Your task to perform on an android device: Open Youtube and go to the subscriptions tab Image 0: 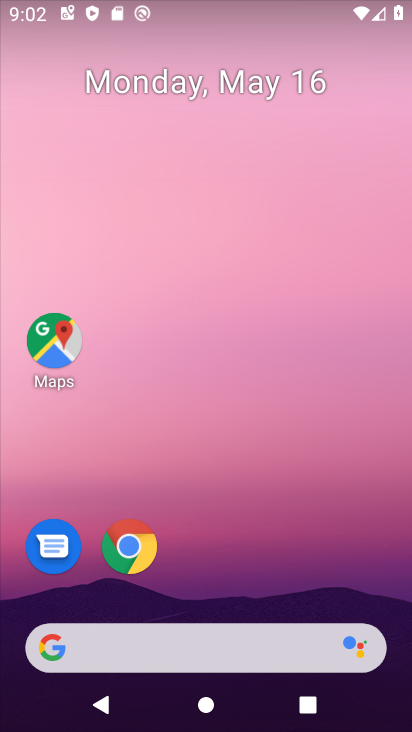
Step 0: press home button
Your task to perform on an android device: Open Youtube and go to the subscriptions tab Image 1: 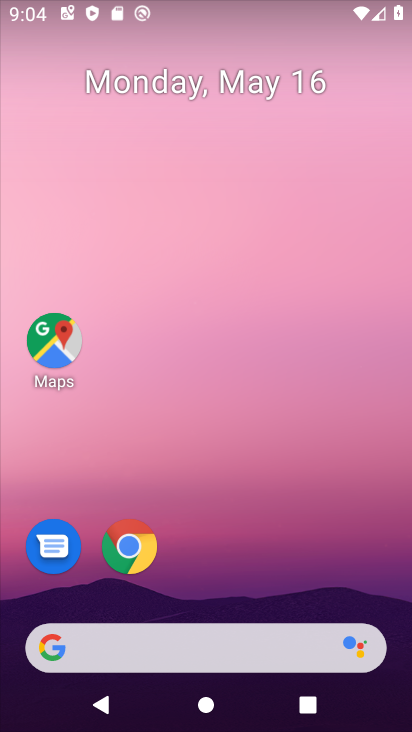
Step 1: drag from (259, 669) to (228, 259)
Your task to perform on an android device: Open Youtube and go to the subscriptions tab Image 2: 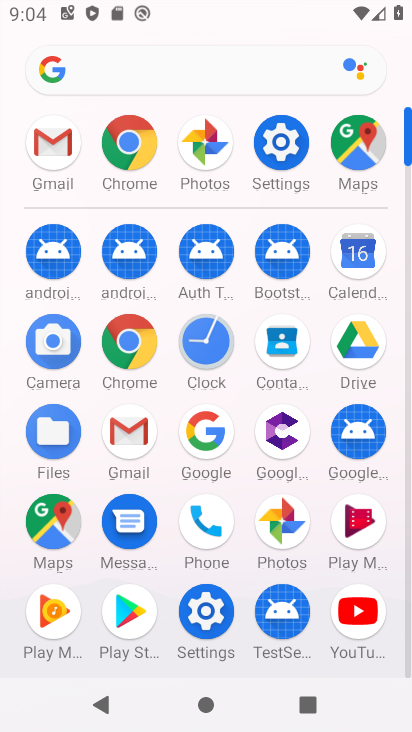
Step 2: click (364, 597)
Your task to perform on an android device: Open Youtube and go to the subscriptions tab Image 3: 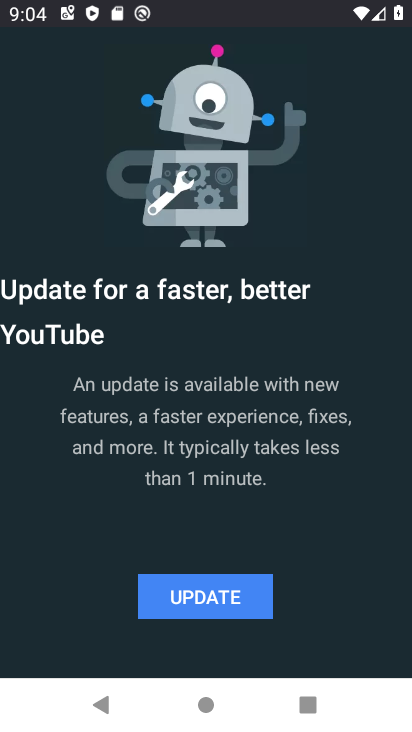
Step 3: click (221, 613)
Your task to perform on an android device: Open Youtube and go to the subscriptions tab Image 4: 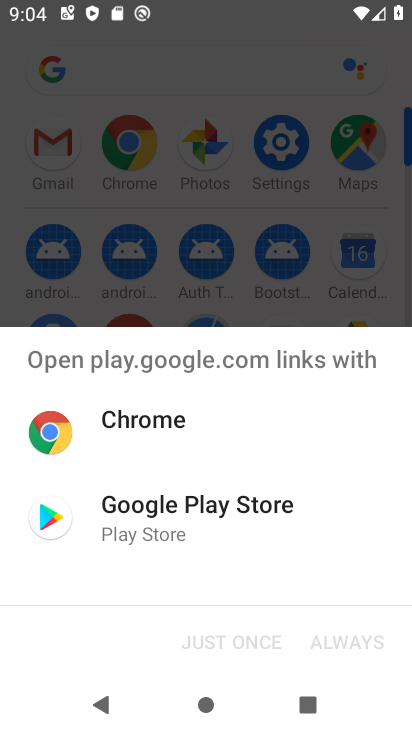
Step 4: click (213, 527)
Your task to perform on an android device: Open Youtube and go to the subscriptions tab Image 5: 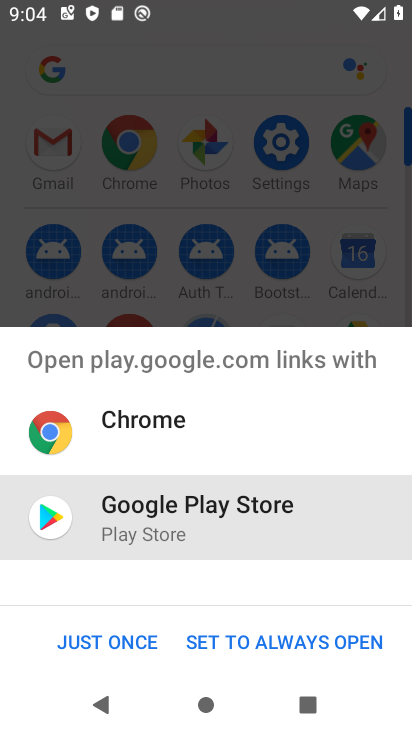
Step 5: click (141, 639)
Your task to perform on an android device: Open Youtube and go to the subscriptions tab Image 6: 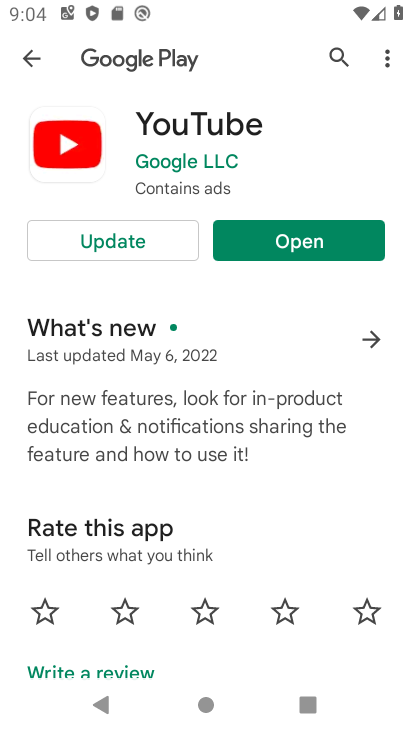
Step 6: click (137, 248)
Your task to perform on an android device: Open Youtube and go to the subscriptions tab Image 7: 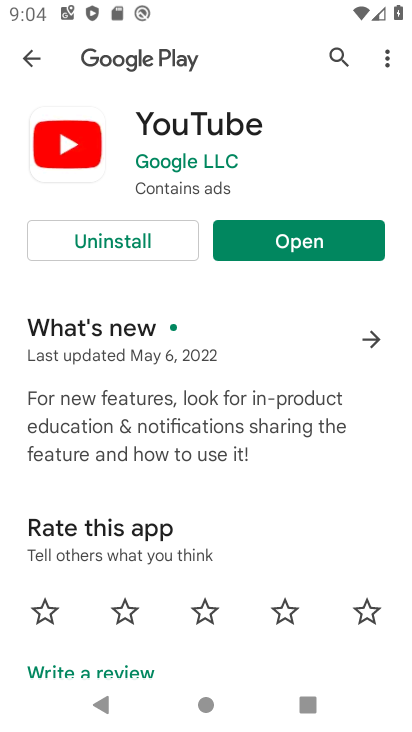
Step 7: click (267, 227)
Your task to perform on an android device: Open Youtube and go to the subscriptions tab Image 8: 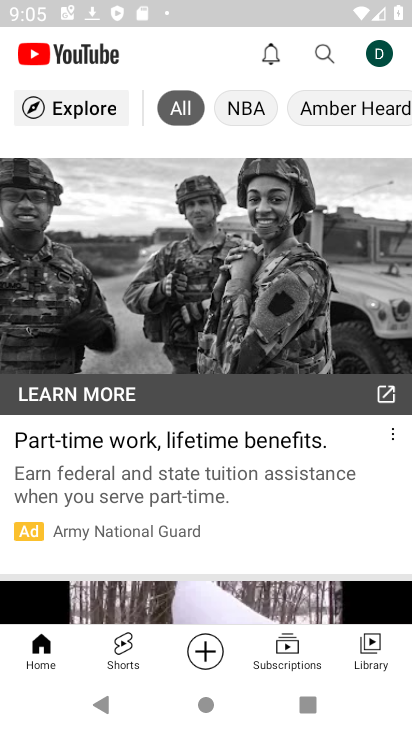
Step 8: click (278, 652)
Your task to perform on an android device: Open Youtube and go to the subscriptions tab Image 9: 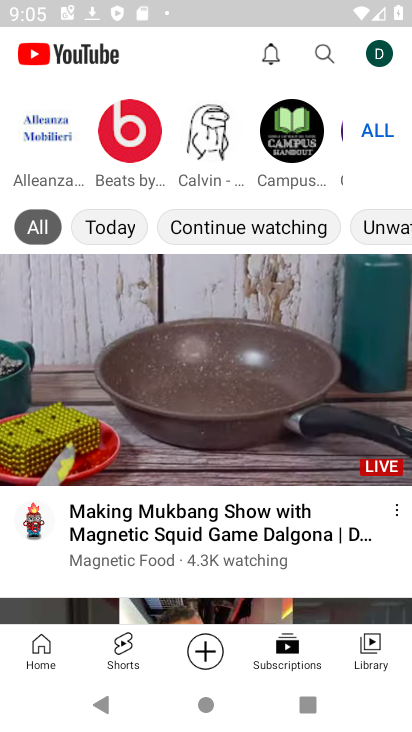
Step 9: task complete